Your task to perform on an android device: check battery use Image 0: 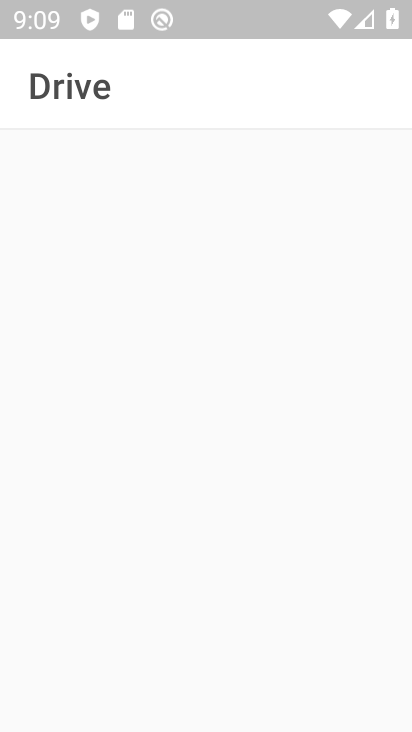
Step 0: press home button
Your task to perform on an android device: check battery use Image 1: 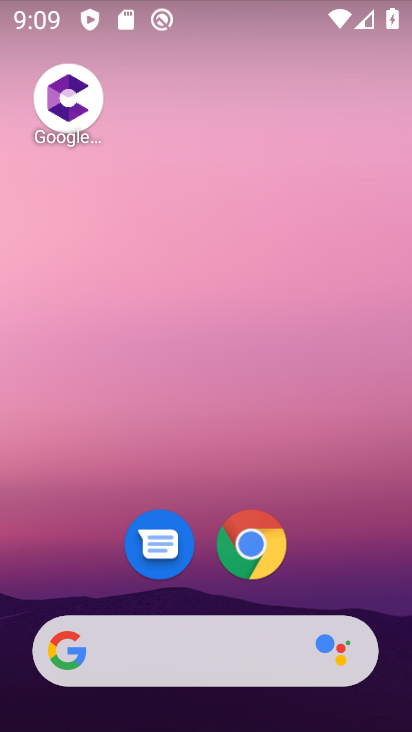
Step 1: drag from (335, 565) to (355, 84)
Your task to perform on an android device: check battery use Image 2: 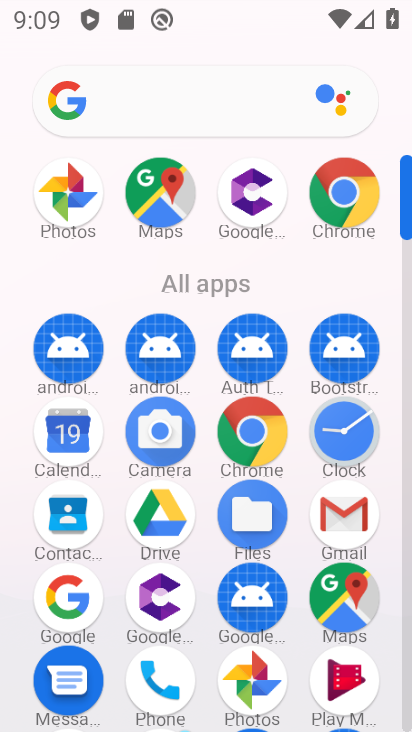
Step 2: drag from (397, 517) to (410, 255)
Your task to perform on an android device: check battery use Image 3: 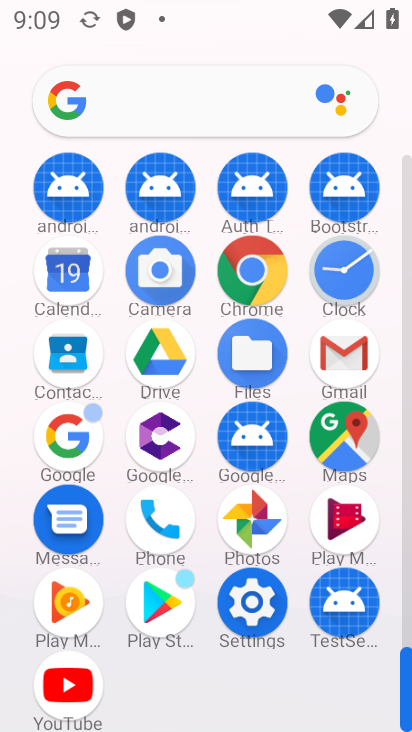
Step 3: click (236, 612)
Your task to perform on an android device: check battery use Image 4: 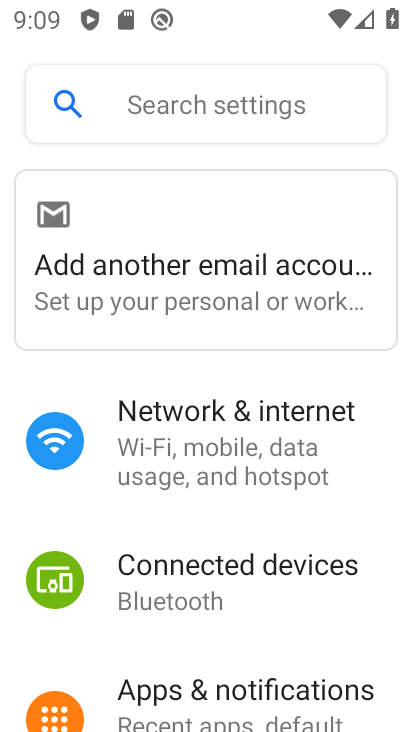
Step 4: drag from (375, 619) to (389, 275)
Your task to perform on an android device: check battery use Image 5: 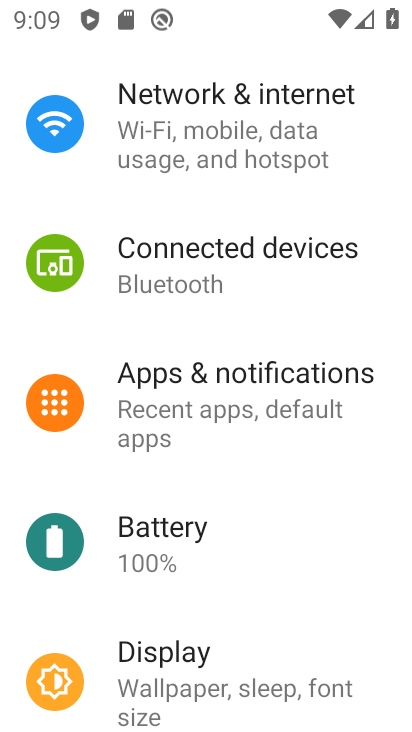
Step 5: drag from (369, 592) to (386, 312)
Your task to perform on an android device: check battery use Image 6: 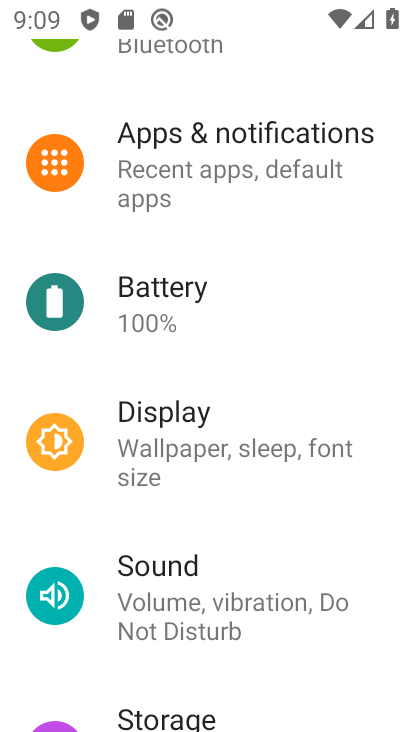
Step 6: drag from (372, 635) to (371, 336)
Your task to perform on an android device: check battery use Image 7: 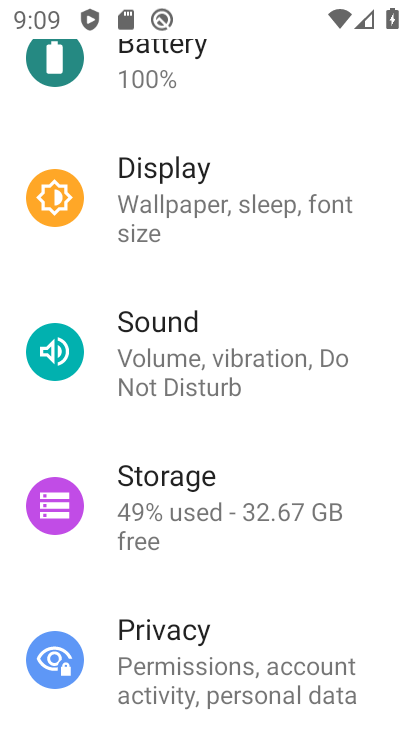
Step 7: drag from (374, 576) to (376, 238)
Your task to perform on an android device: check battery use Image 8: 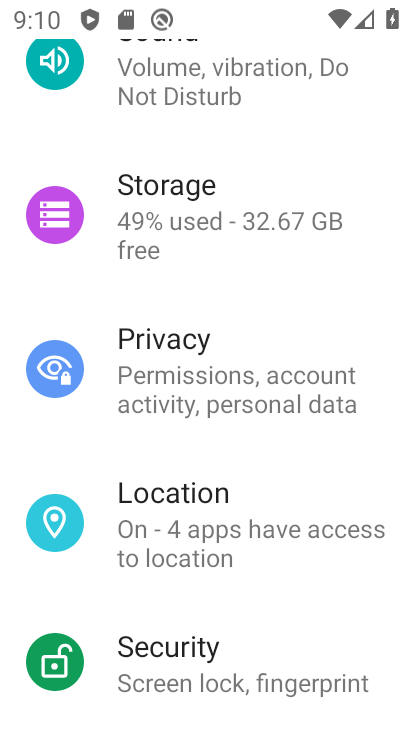
Step 8: drag from (385, 182) to (365, 480)
Your task to perform on an android device: check battery use Image 9: 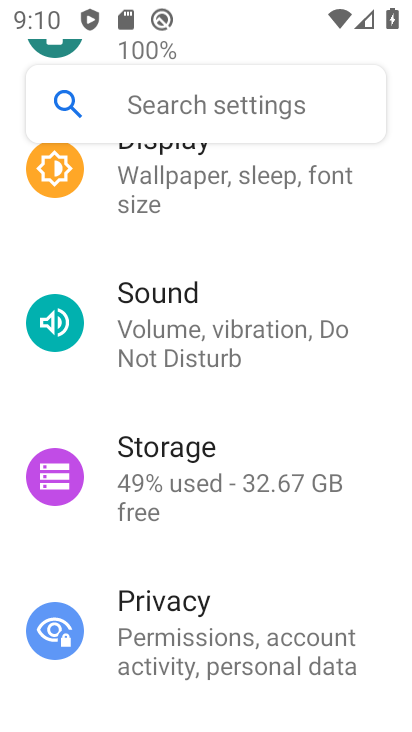
Step 9: drag from (372, 239) to (360, 495)
Your task to perform on an android device: check battery use Image 10: 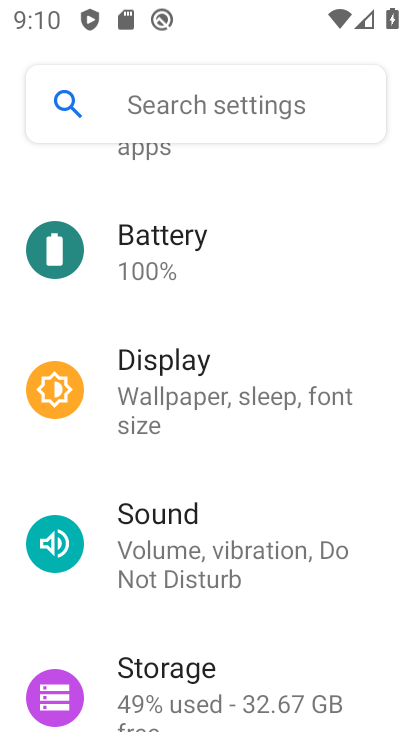
Step 10: click (147, 256)
Your task to perform on an android device: check battery use Image 11: 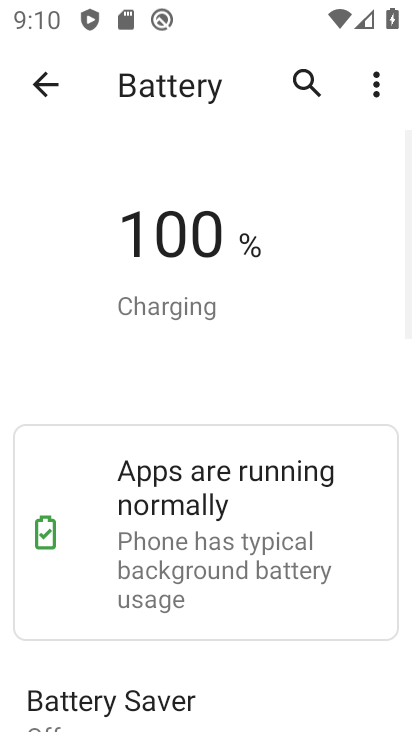
Step 11: click (379, 84)
Your task to perform on an android device: check battery use Image 12: 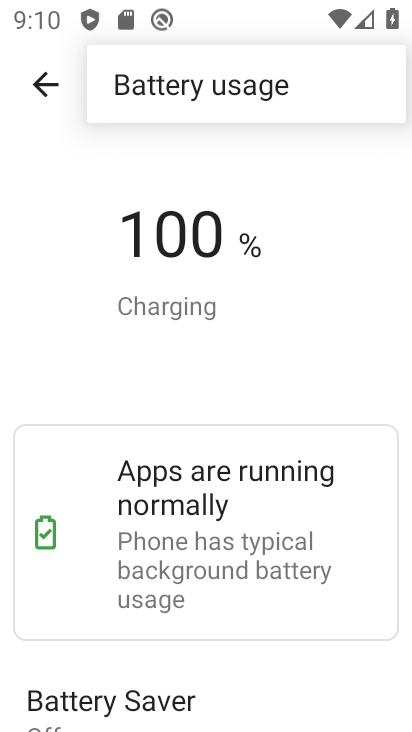
Step 12: click (266, 91)
Your task to perform on an android device: check battery use Image 13: 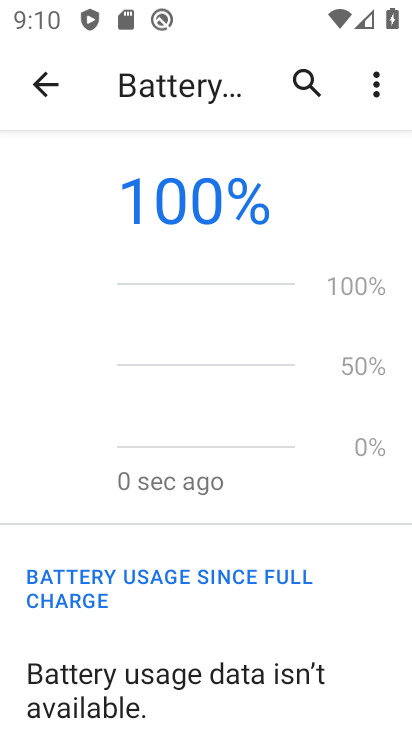
Step 13: task complete